Your task to perform on an android device: turn off location history Image 0: 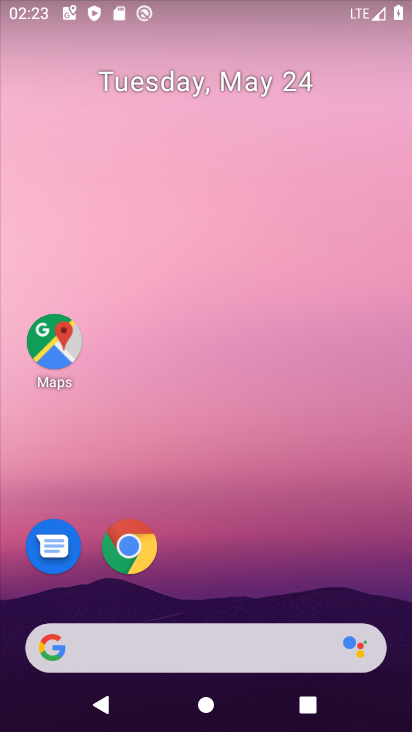
Step 0: drag from (198, 540) to (290, 6)
Your task to perform on an android device: turn off location history Image 1: 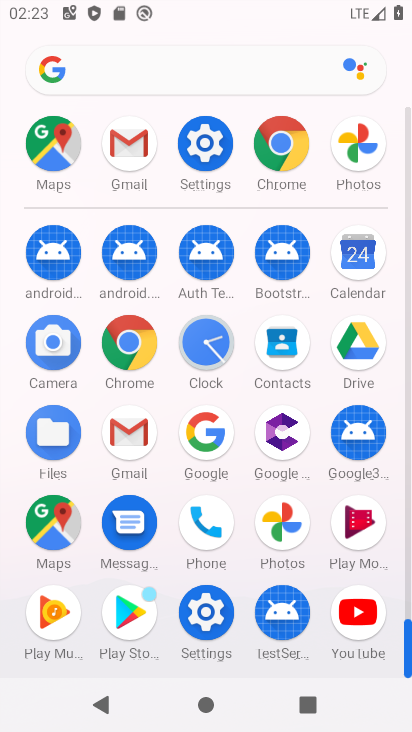
Step 1: click (200, 147)
Your task to perform on an android device: turn off location history Image 2: 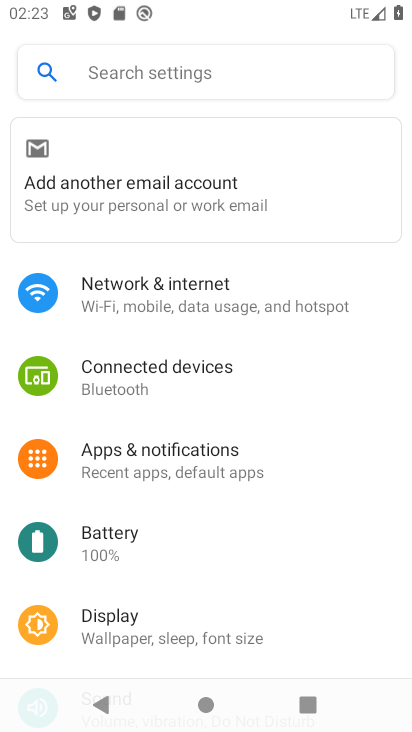
Step 2: drag from (220, 617) to (316, 171)
Your task to perform on an android device: turn off location history Image 3: 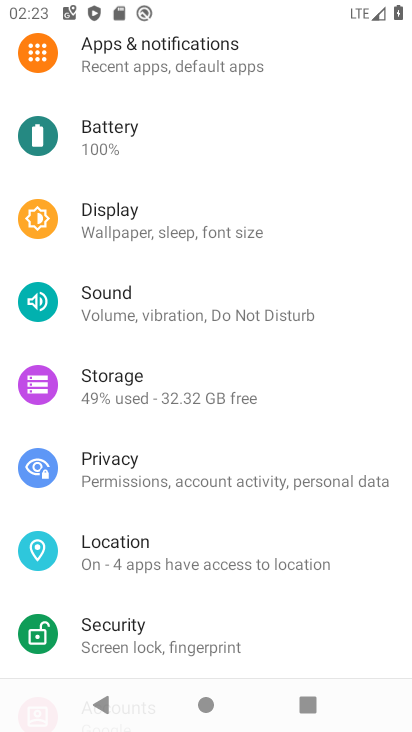
Step 3: click (148, 543)
Your task to perform on an android device: turn off location history Image 4: 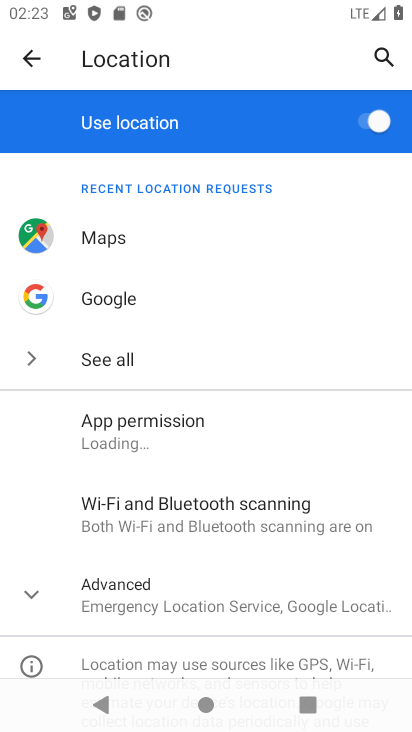
Step 4: drag from (262, 645) to (313, 207)
Your task to perform on an android device: turn off location history Image 5: 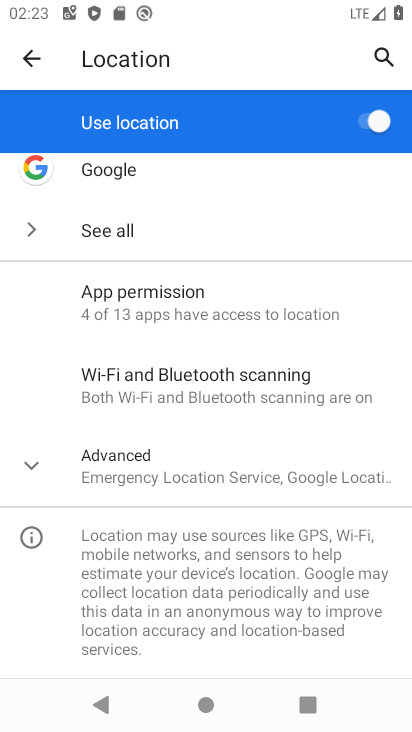
Step 5: click (153, 463)
Your task to perform on an android device: turn off location history Image 6: 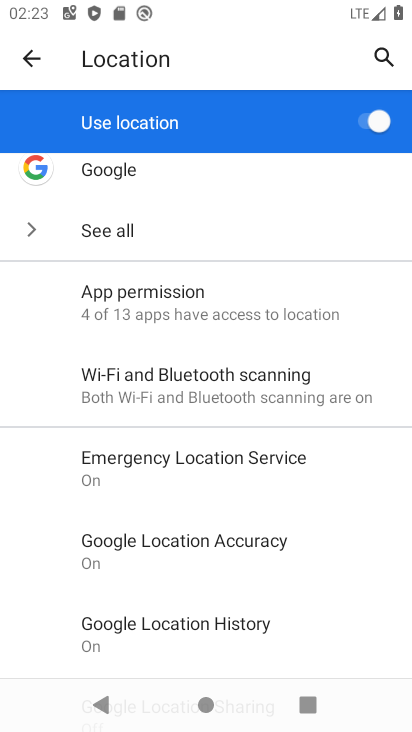
Step 6: click (212, 608)
Your task to perform on an android device: turn off location history Image 7: 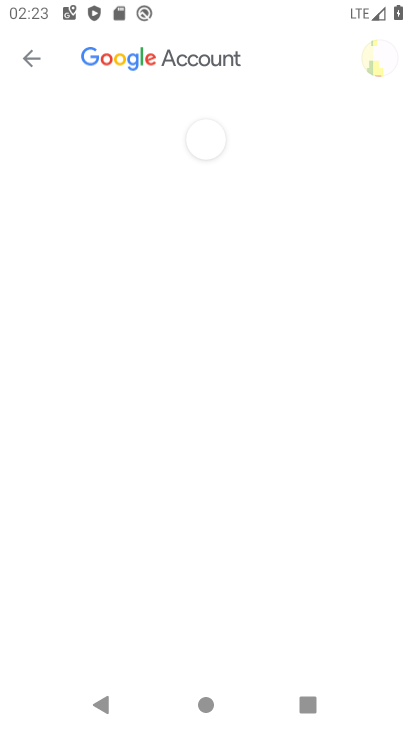
Step 7: drag from (213, 614) to (324, 154)
Your task to perform on an android device: turn off location history Image 8: 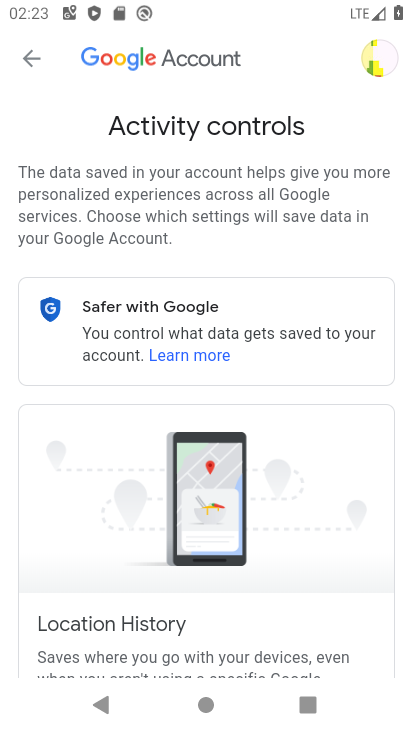
Step 8: drag from (215, 569) to (286, 74)
Your task to perform on an android device: turn off location history Image 9: 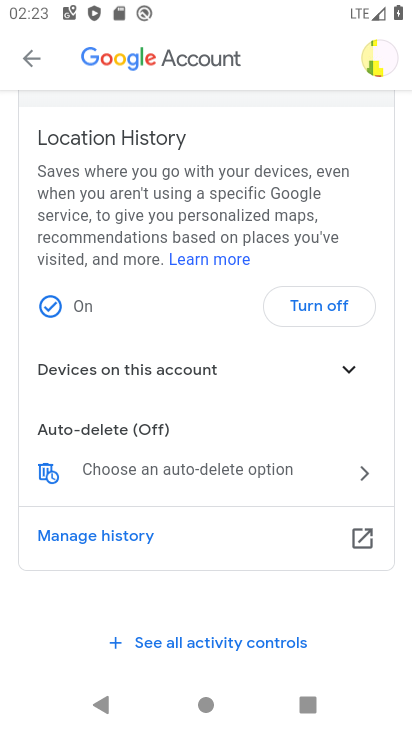
Step 9: click (282, 318)
Your task to perform on an android device: turn off location history Image 10: 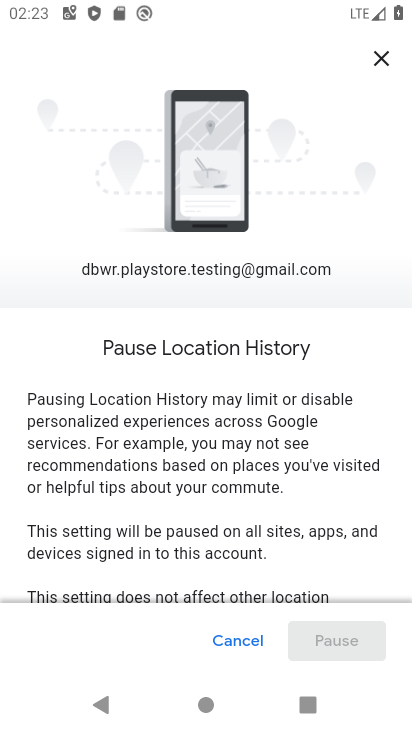
Step 10: drag from (243, 592) to (410, 60)
Your task to perform on an android device: turn off location history Image 11: 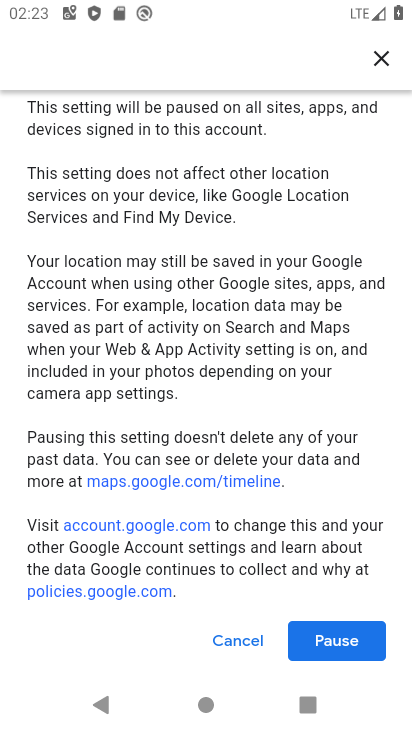
Step 11: click (346, 628)
Your task to perform on an android device: turn off location history Image 12: 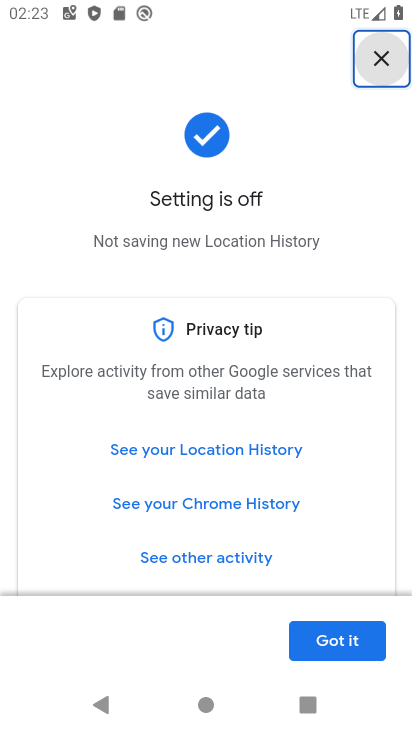
Step 12: click (338, 624)
Your task to perform on an android device: turn off location history Image 13: 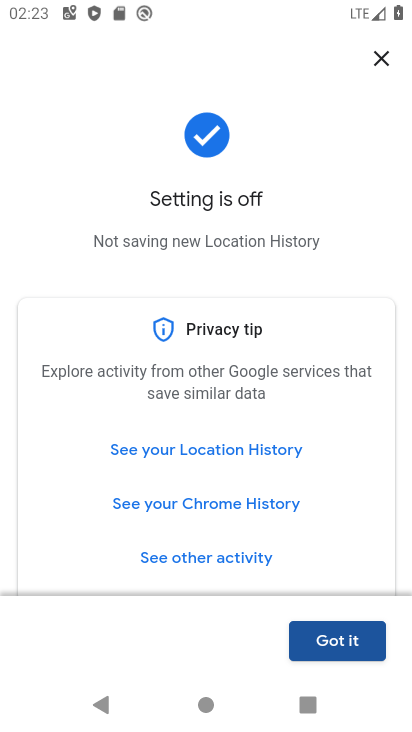
Step 13: task complete